Your task to perform on an android device: Open the map Image 0: 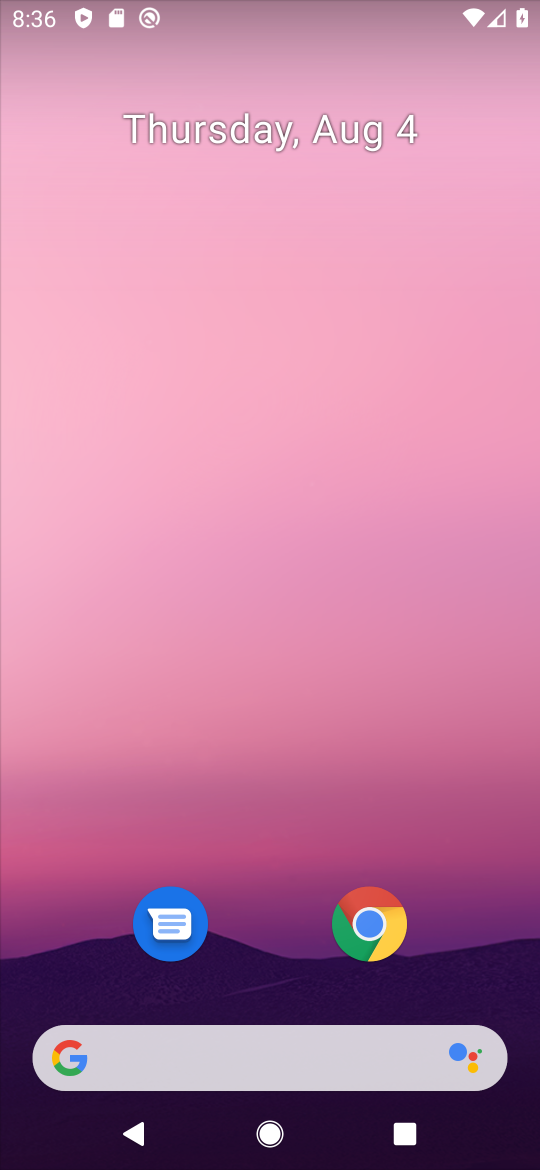
Step 0: drag from (283, 970) to (252, 67)
Your task to perform on an android device: Open the map Image 1: 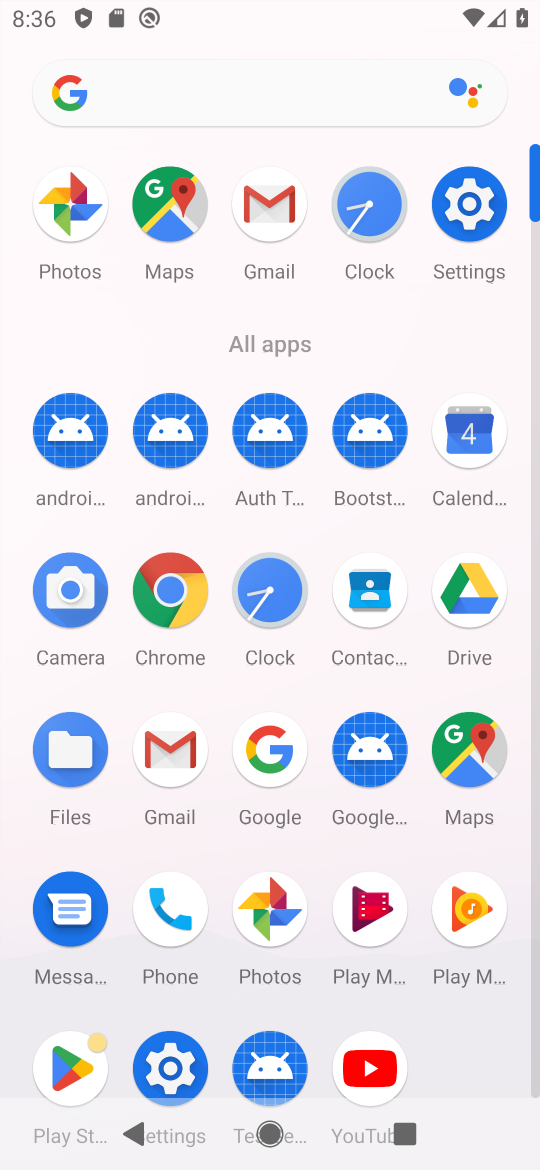
Step 1: click (464, 753)
Your task to perform on an android device: Open the map Image 2: 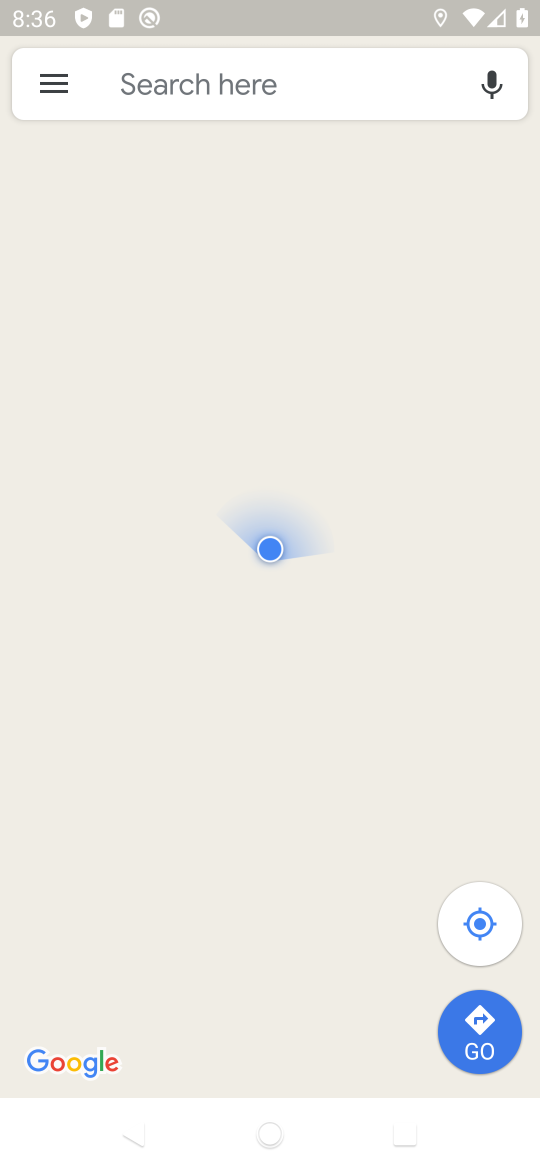
Step 2: task complete